Your task to perform on an android device: turn off priority inbox in the gmail app Image 0: 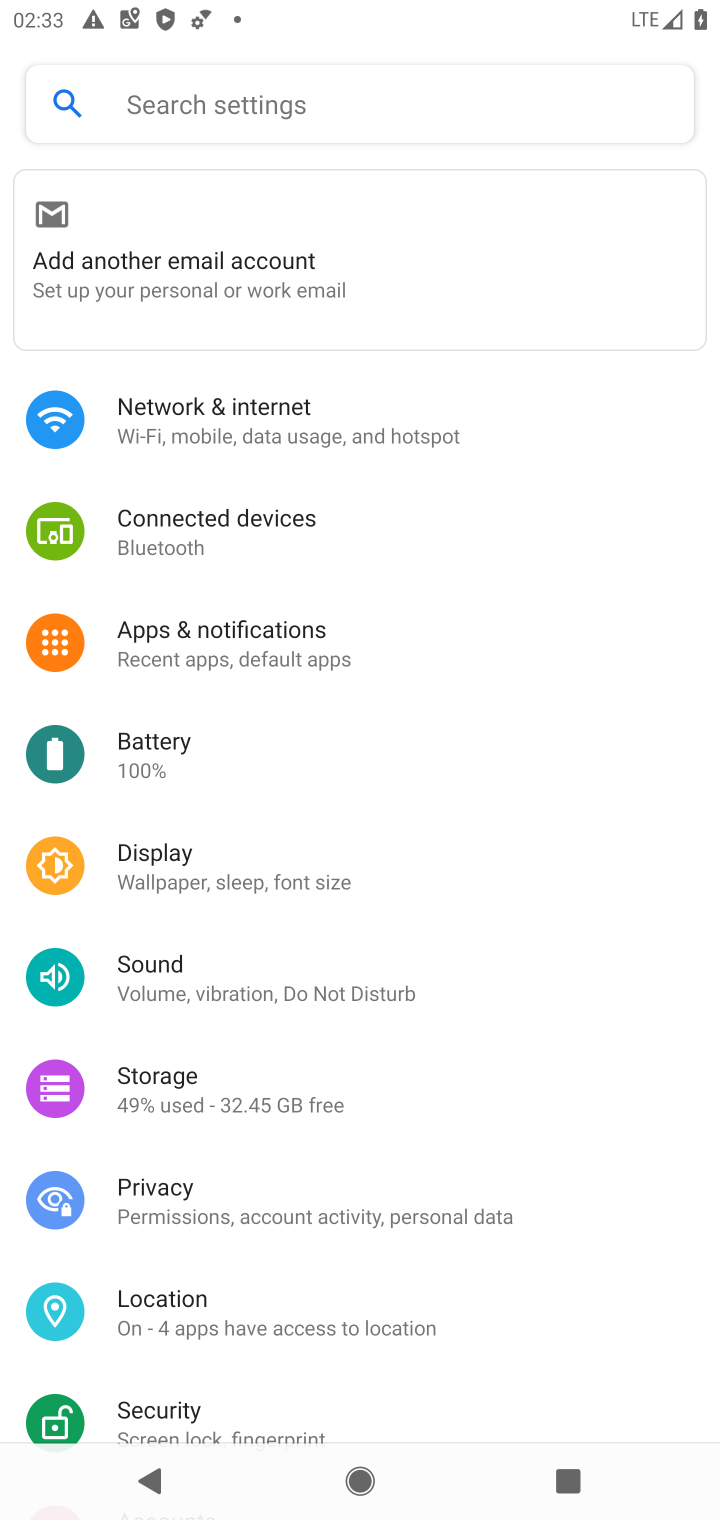
Step 0: press home button
Your task to perform on an android device: turn off priority inbox in the gmail app Image 1: 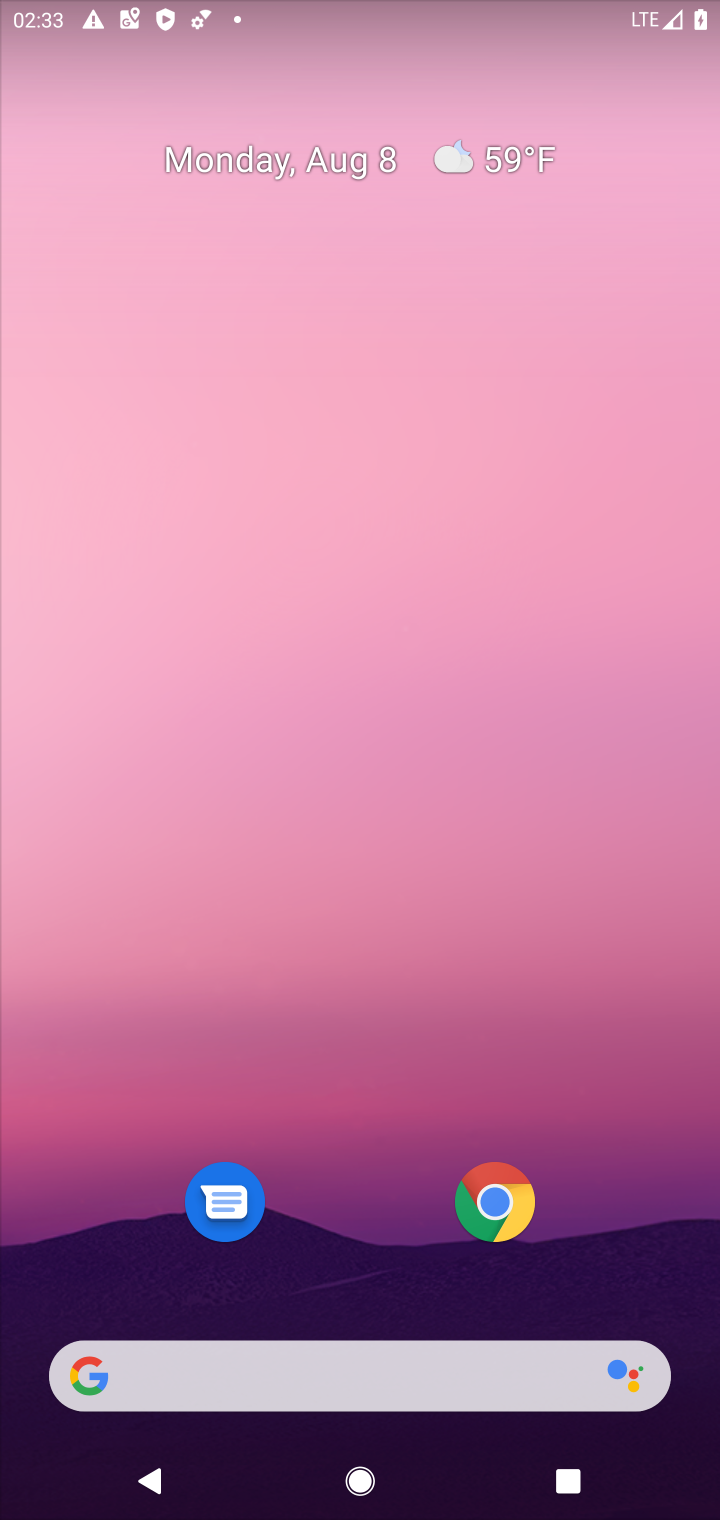
Step 1: drag from (389, 662) to (487, 94)
Your task to perform on an android device: turn off priority inbox in the gmail app Image 2: 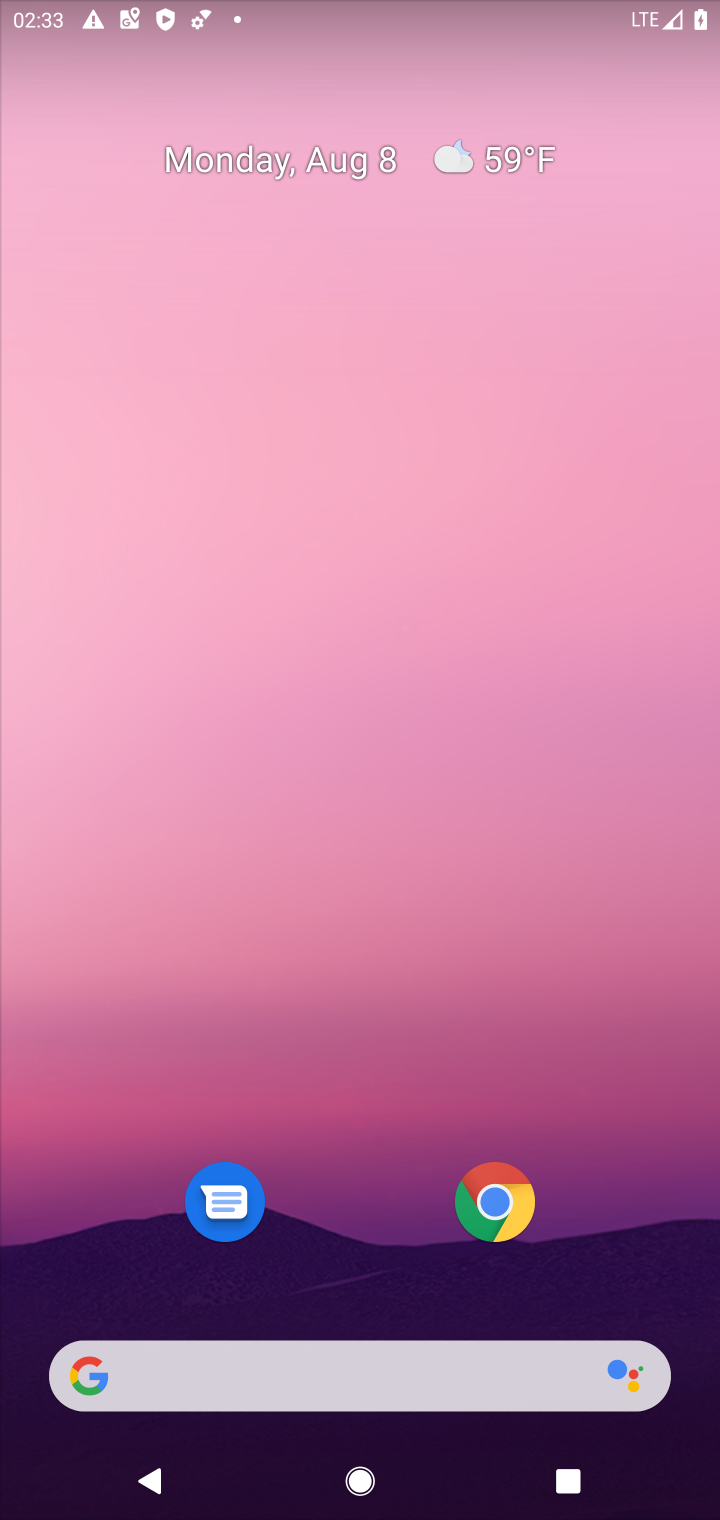
Step 2: click (477, 29)
Your task to perform on an android device: turn off priority inbox in the gmail app Image 3: 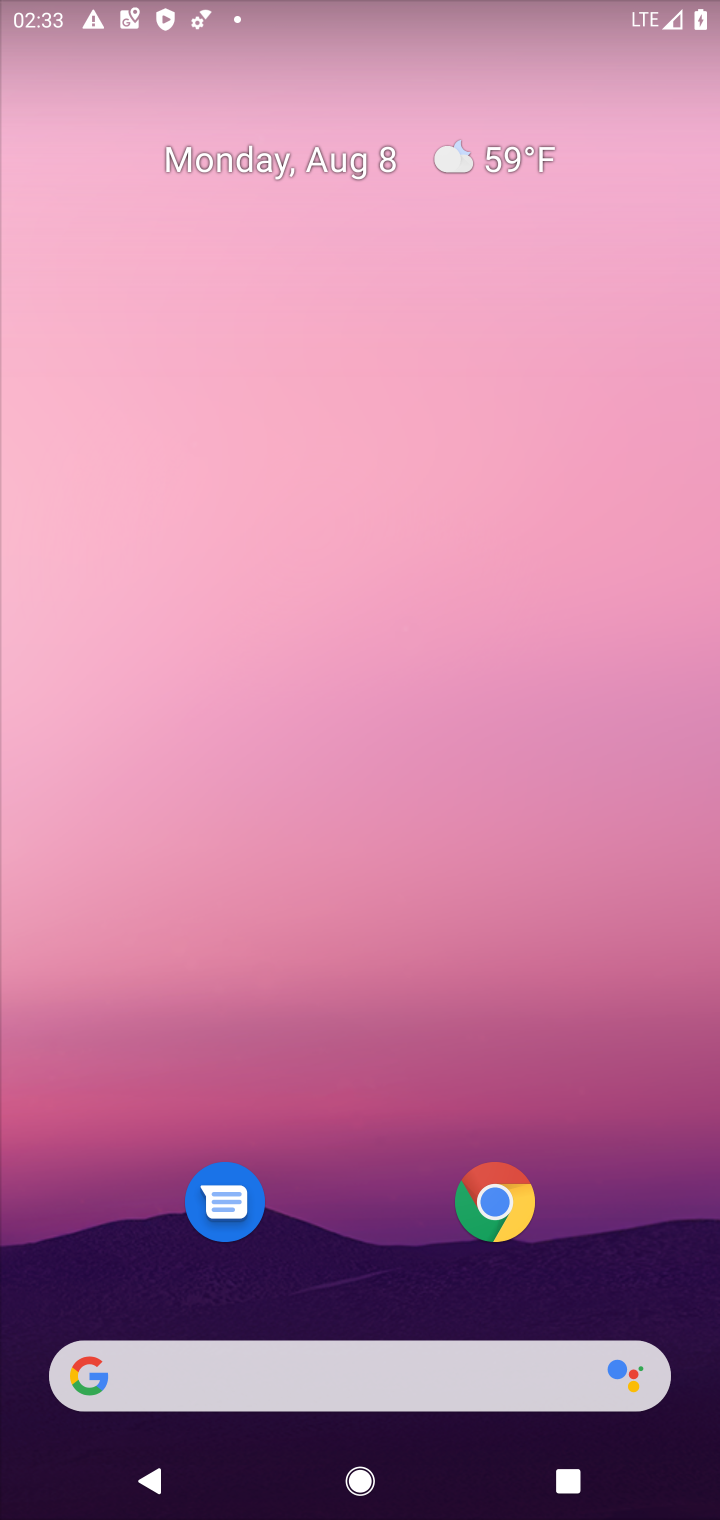
Step 3: drag from (333, 301) to (405, 284)
Your task to perform on an android device: turn off priority inbox in the gmail app Image 4: 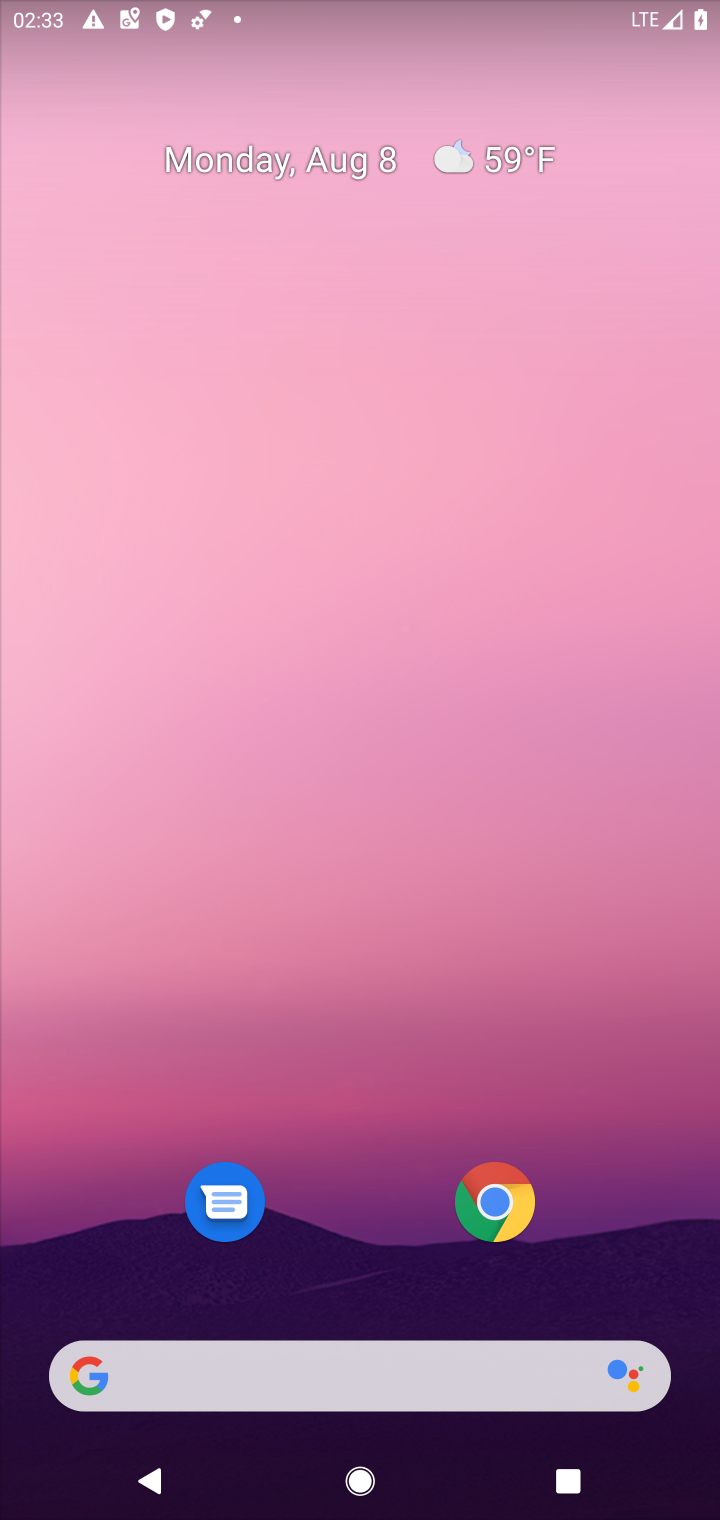
Step 4: drag from (363, 759) to (442, 95)
Your task to perform on an android device: turn off priority inbox in the gmail app Image 5: 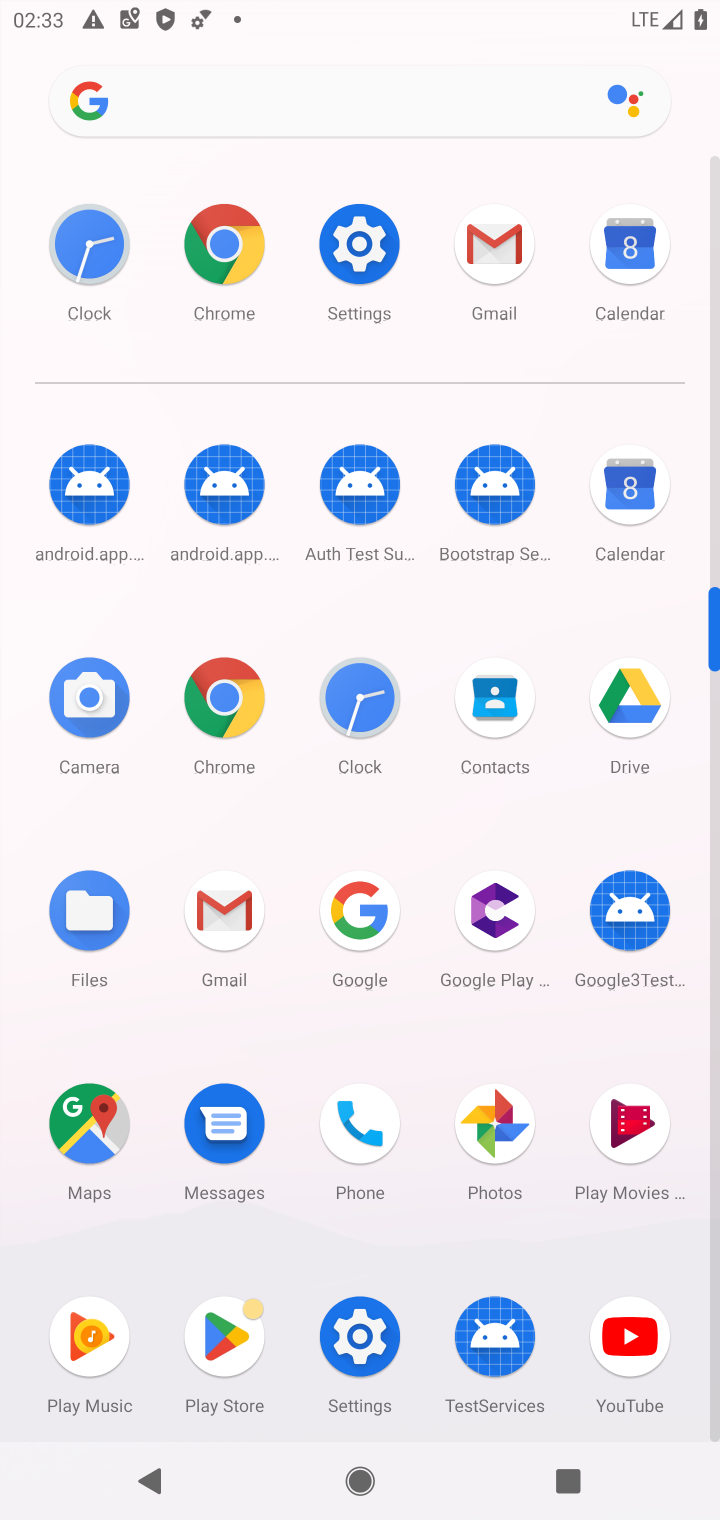
Step 5: click (211, 935)
Your task to perform on an android device: turn off priority inbox in the gmail app Image 6: 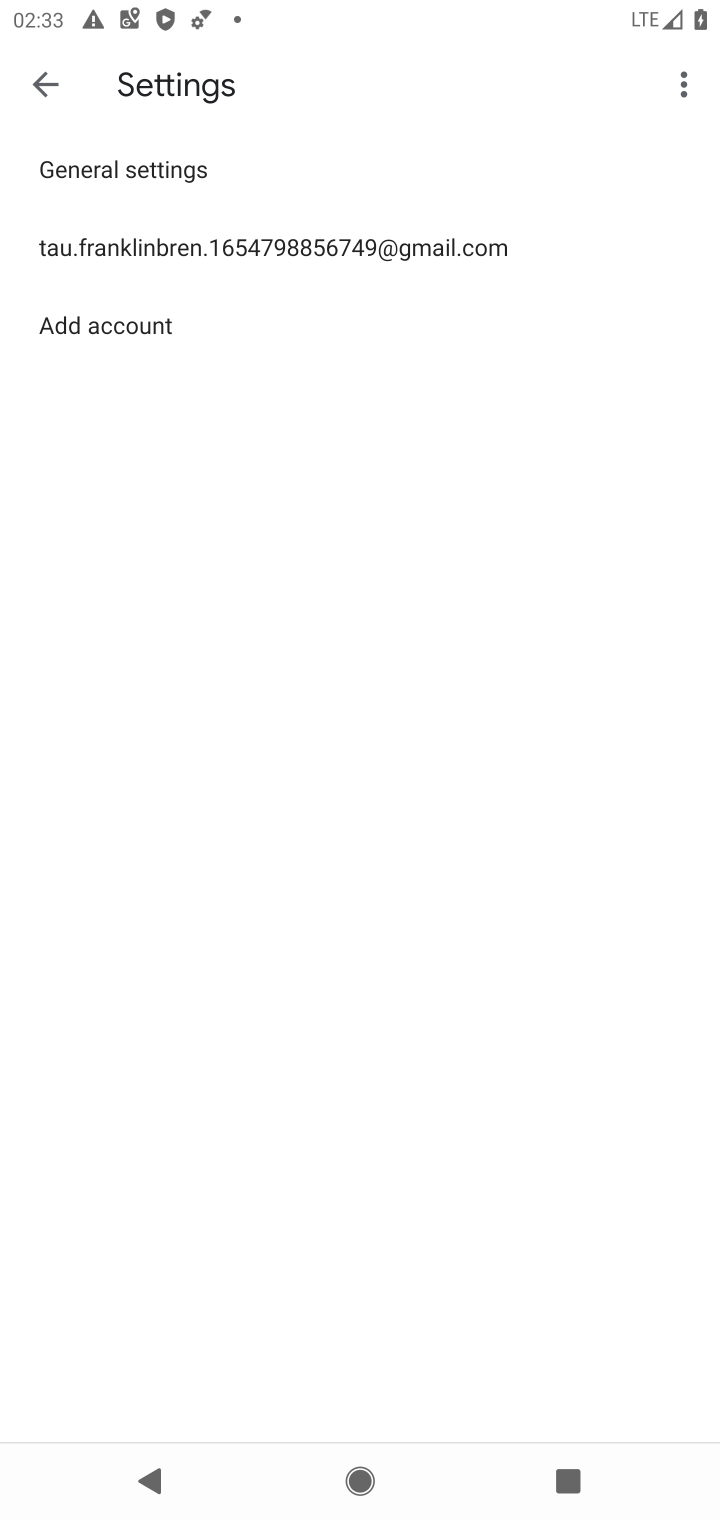
Step 6: click (229, 247)
Your task to perform on an android device: turn off priority inbox in the gmail app Image 7: 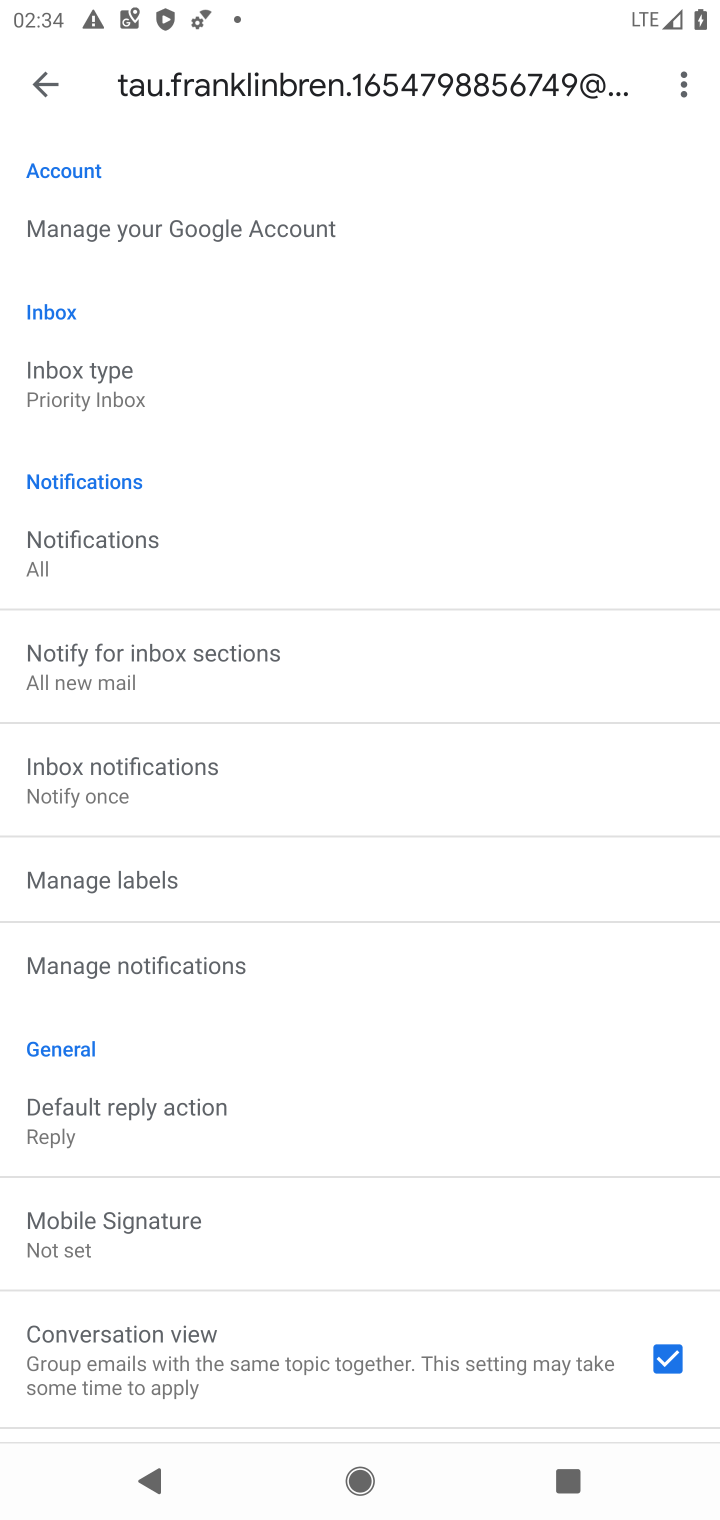
Step 7: click (82, 389)
Your task to perform on an android device: turn off priority inbox in the gmail app Image 8: 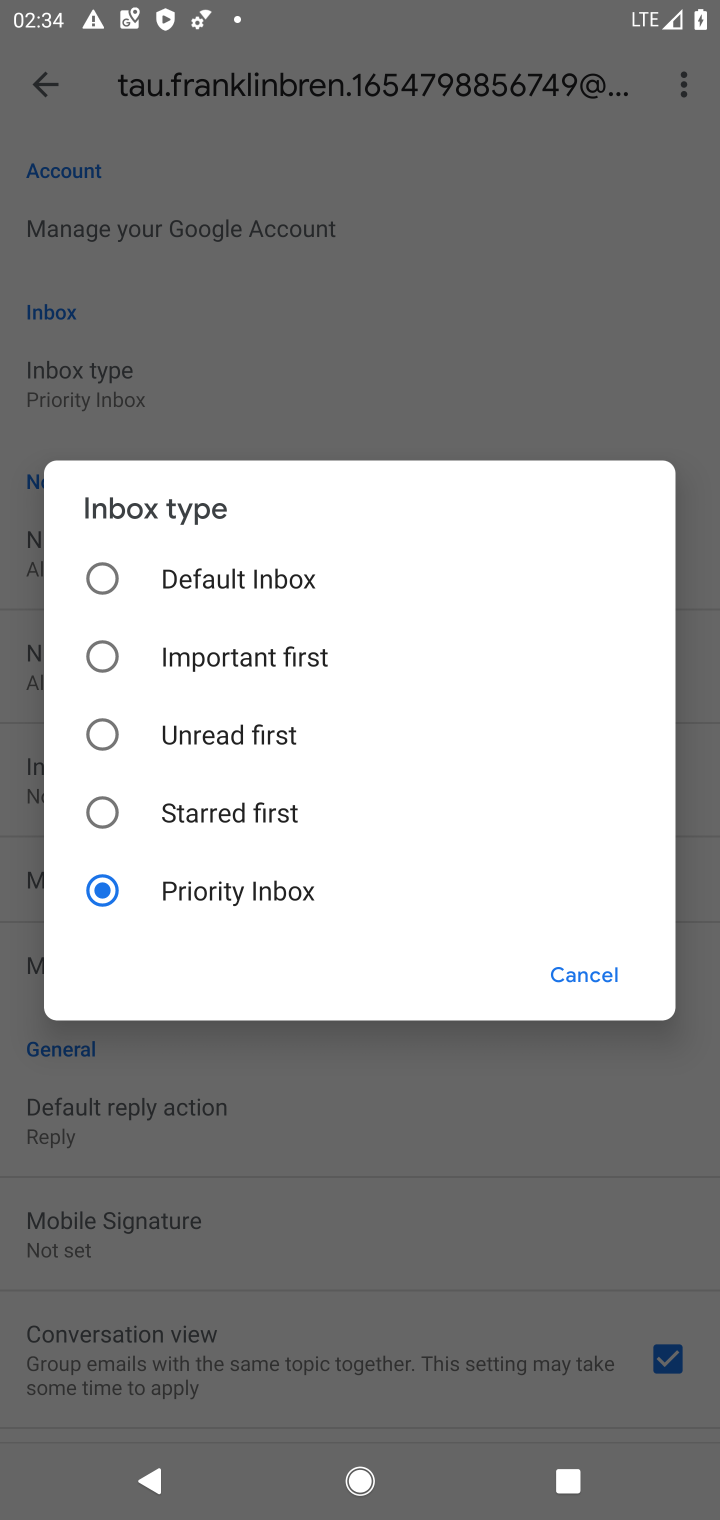
Step 8: click (114, 580)
Your task to perform on an android device: turn off priority inbox in the gmail app Image 9: 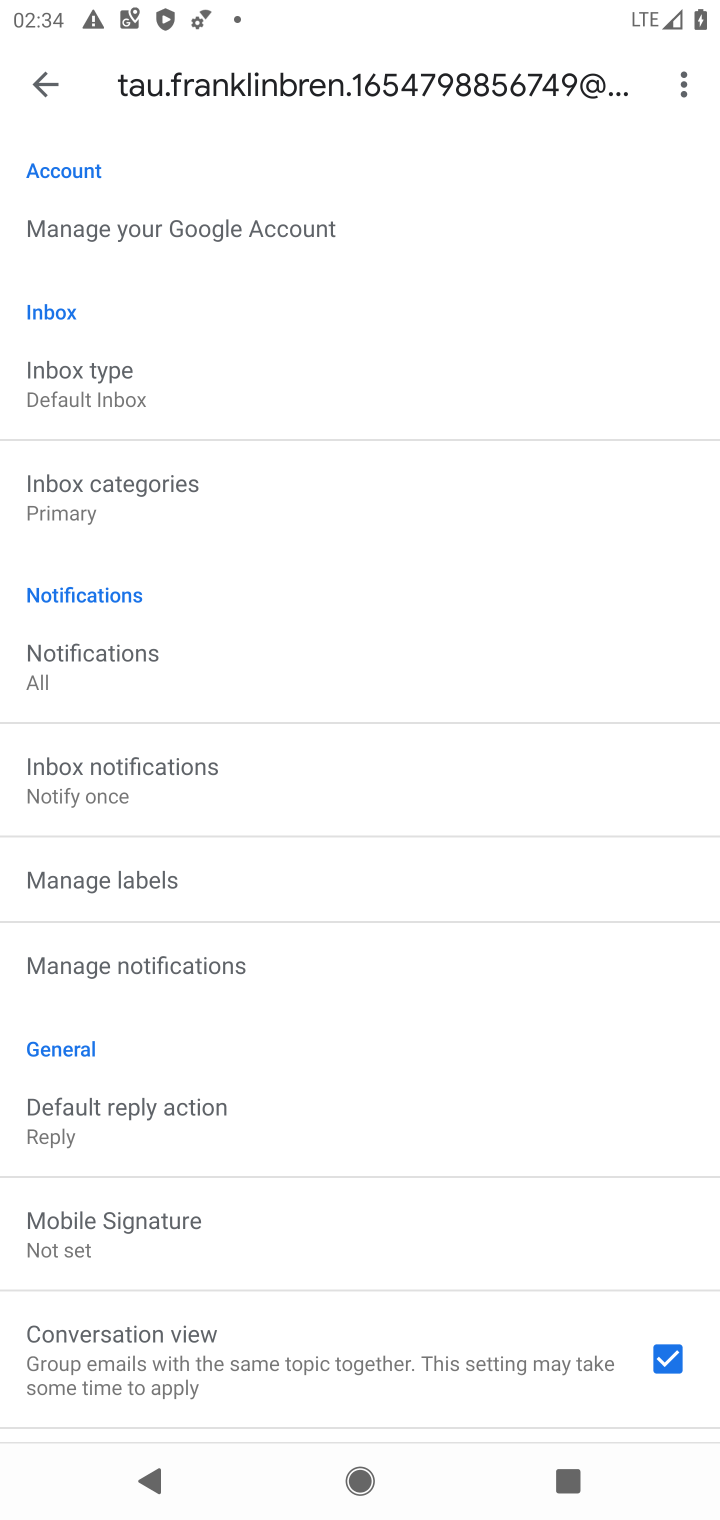
Step 9: task complete